Your task to perform on an android device: Show me productivity apps on the Play Store Image 0: 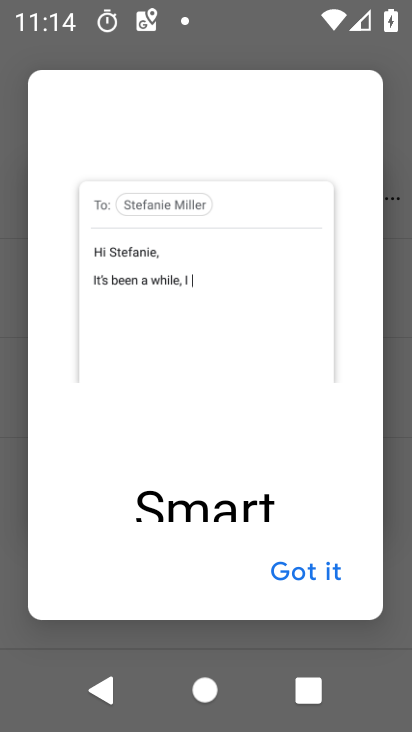
Step 0: press back button
Your task to perform on an android device: Show me productivity apps on the Play Store Image 1: 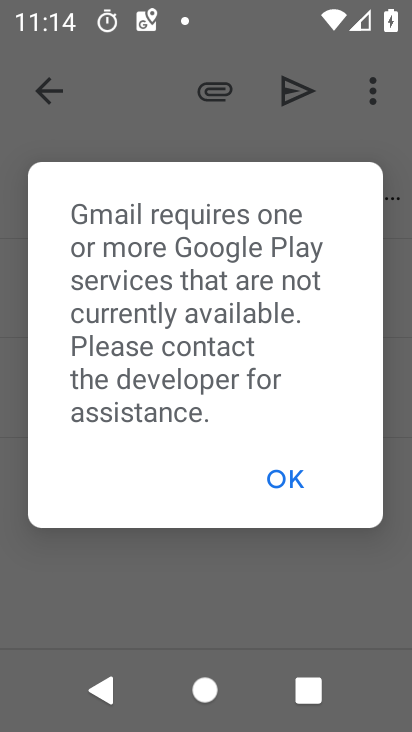
Step 1: press home button
Your task to perform on an android device: Show me productivity apps on the Play Store Image 2: 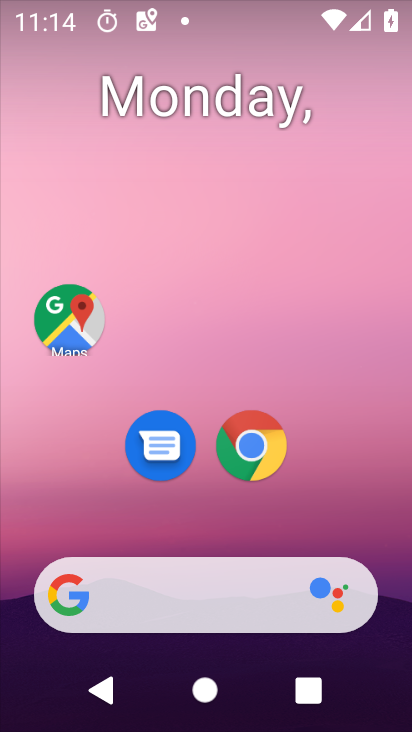
Step 2: drag from (180, 523) to (268, 127)
Your task to perform on an android device: Show me productivity apps on the Play Store Image 3: 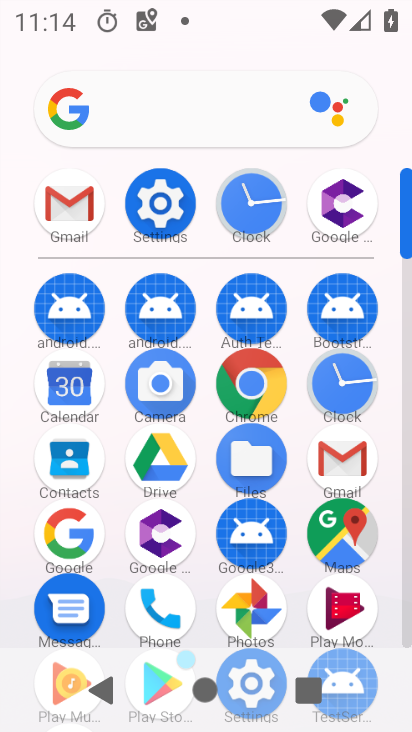
Step 3: drag from (155, 608) to (240, 242)
Your task to perform on an android device: Show me productivity apps on the Play Store Image 4: 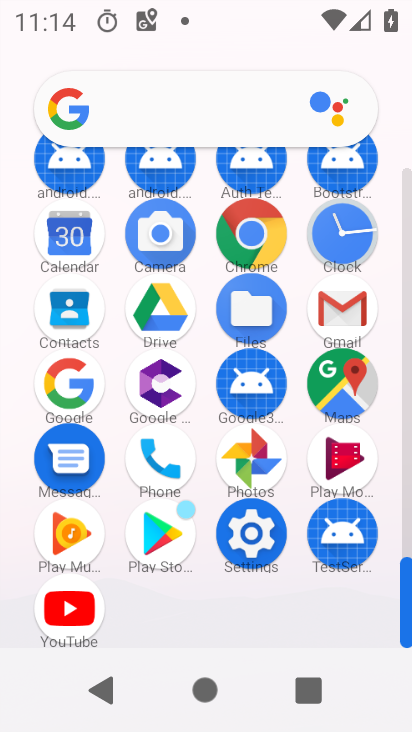
Step 4: click (153, 543)
Your task to perform on an android device: Show me productivity apps on the Play Store Image 5: 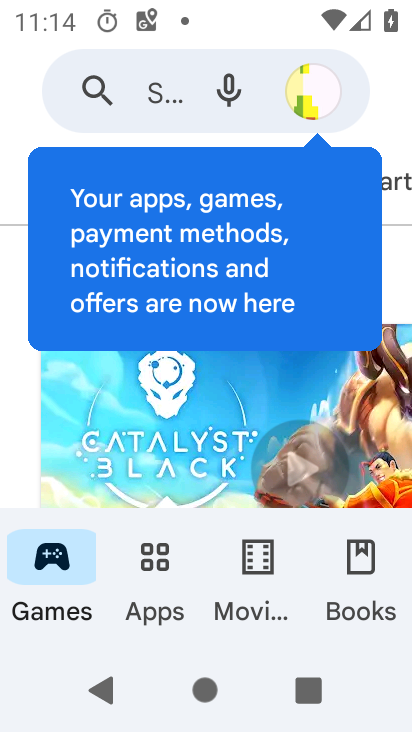
Step 5: click (158, 594)
Your task to perform on an android device: Show me productivity apps on the Play Store Image 6: 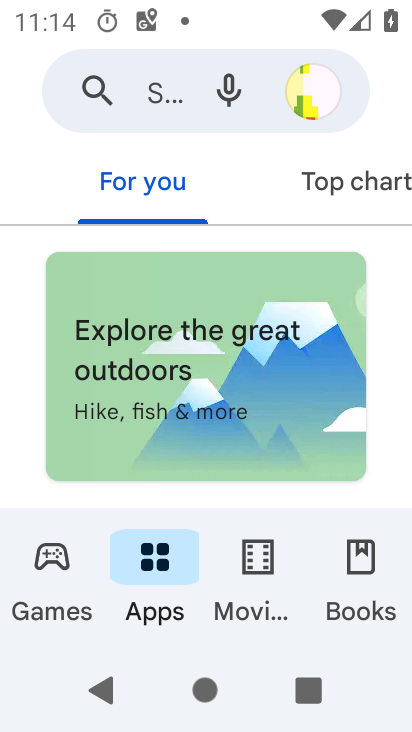
Step 6: drag from (152, 472) to (263, 36)
Your task to perform on an android device: Show me productivity apps on the Play Store Image 7: 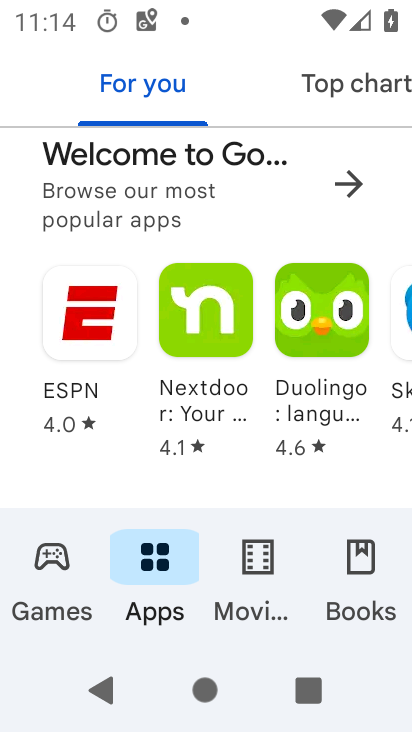
Step 7: drag from (210, 474) to (288, 29)
Your task to perform on an android device: Show me productivity apps on the Play Store Image 8: 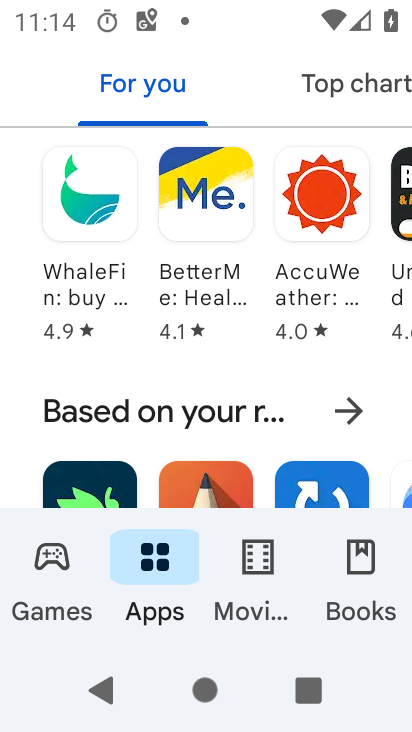
Step 8: drag from (213, 466) to (313, 29)
Your task to perform on an android device: Show me productivity apps on the Play Store Image 9: 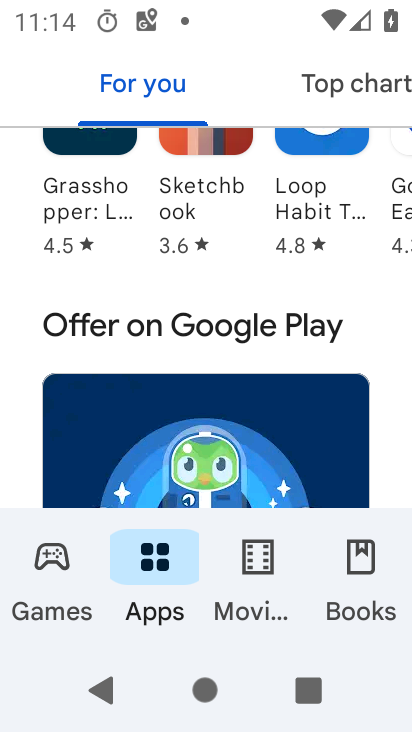
Step 9: drag from (219, 455) to (311, 18)
Your task to perform on an android device: Show me productivity apps on the Play Store Image 10: 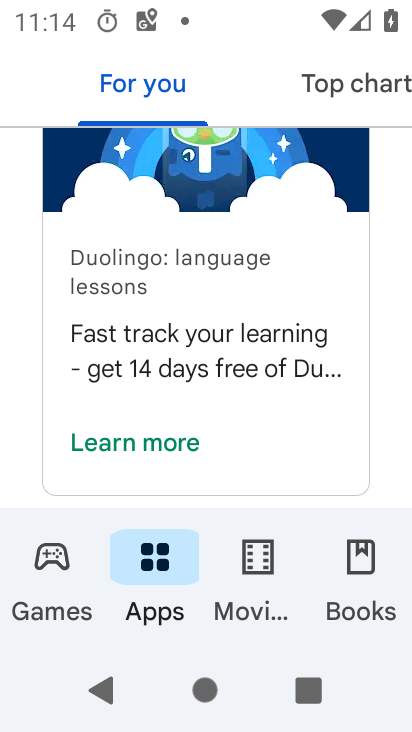
Step 10: drag from (217, 453) to (260, 33)
Your task to perform on an android device: Show me productivity apps on the Play Store Image 11: 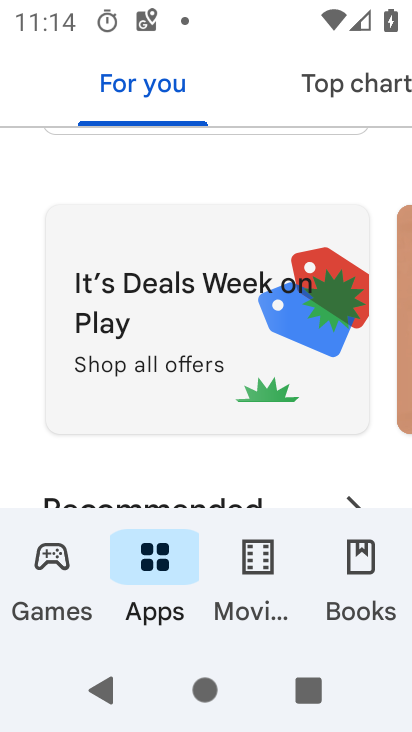
Step 11: drag from (215, 459) to (270, 20)
Your task to perform on an android device: Show me productivity apps on the Play Store Image 12: 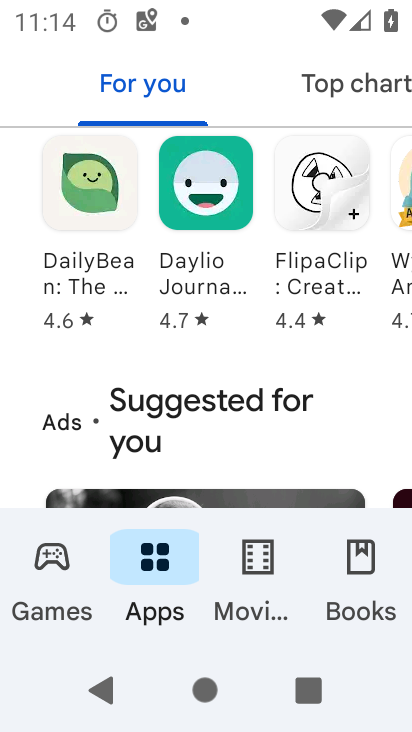
Step 12: drag from (249, 405) to (274, 6)
Your task to perform on an android device: Show me productivity apps on the Play Store Image 13: 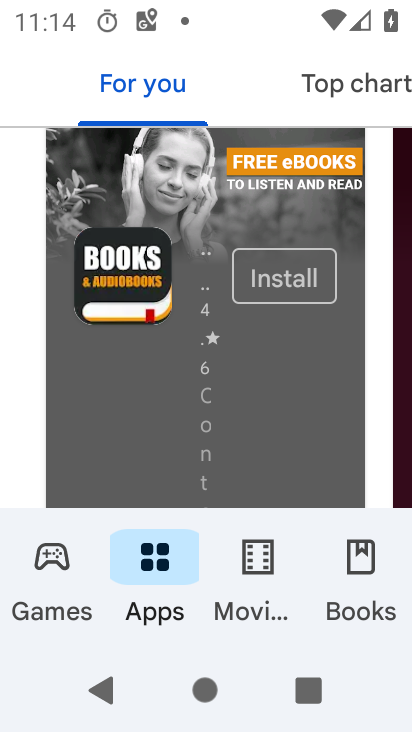
Step 13: drag from (251, 427) to (310, 27)
Your task to perform on an android device: Show me productivity apps on the Play Store Image 14: 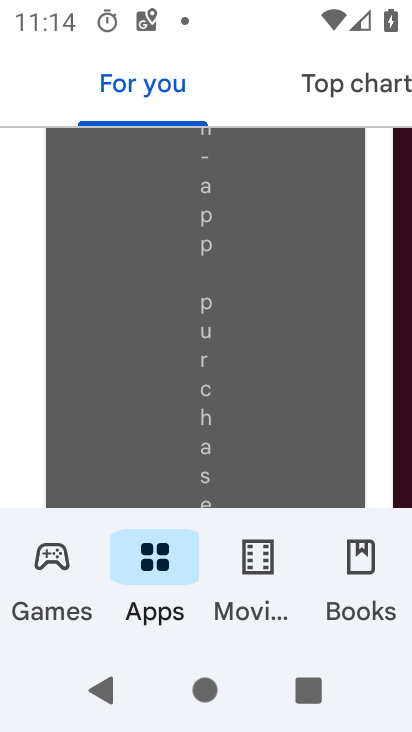
Step 14: drag from (169, 467) to (284, 14)
Your task to perform on an android device: Show me productivity apps on the Play Store Image 15: 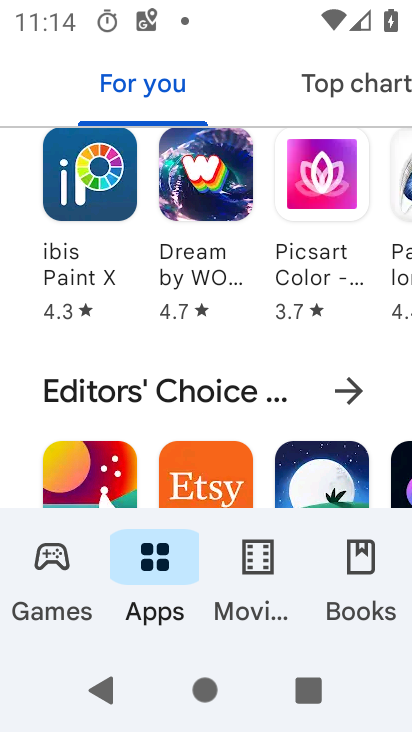
Step 15: drag from (224, 450) to (332, 5)
Your task to perform on an android device: Show me productivity apps on the Play Store Image 16: 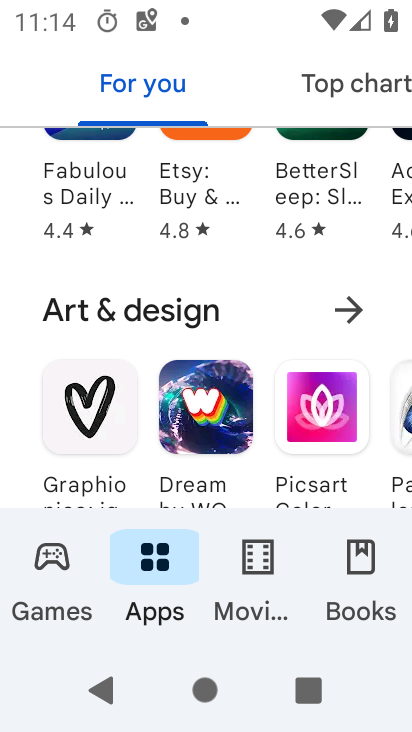
Step 16: drag from (225, 453) to (296, 54)
Your task to perform on an android device: Show me productivity apps on the Play Store Image 17: 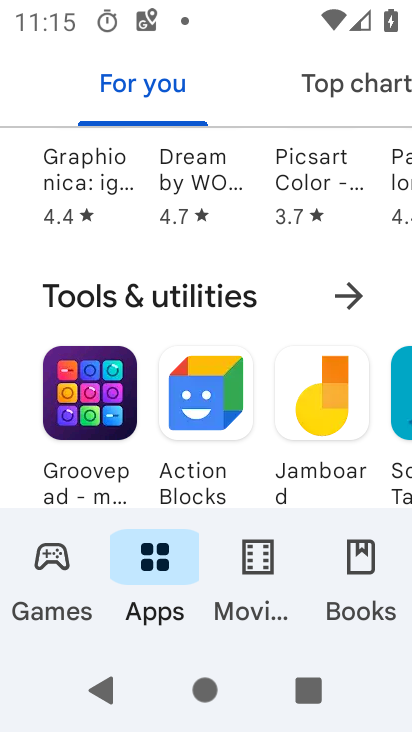
Step 17: drag from (244, 471) to (296, 51)
Your task to perform on an android device: Show me productivity apps on the Play Store Image 18: 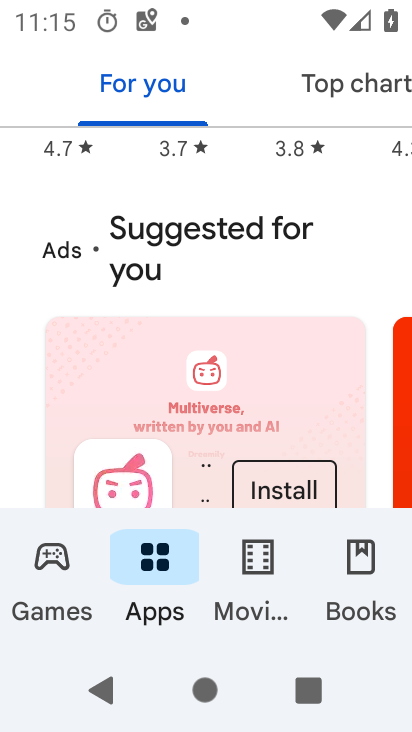
Step 18: drag from (204, 459) to (285, 18)
Your task to perform on an android device: Show me productivity apps on the Play Store Image 19: 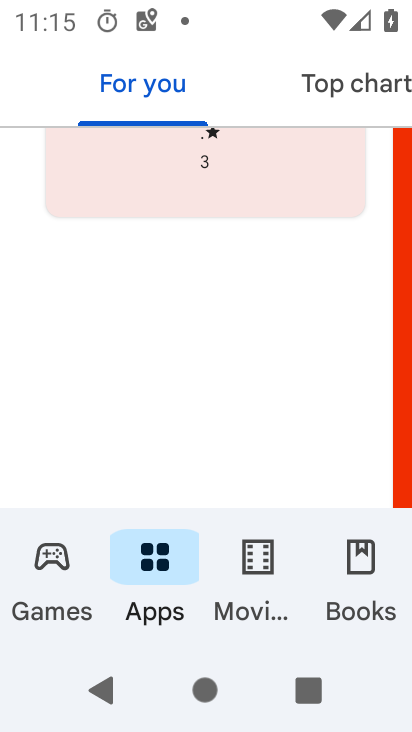
Step 19: drag from (208, 473) to (324, 0)
Your task to perform on an android device: Show me productivity apps on the Play Store Image 20: 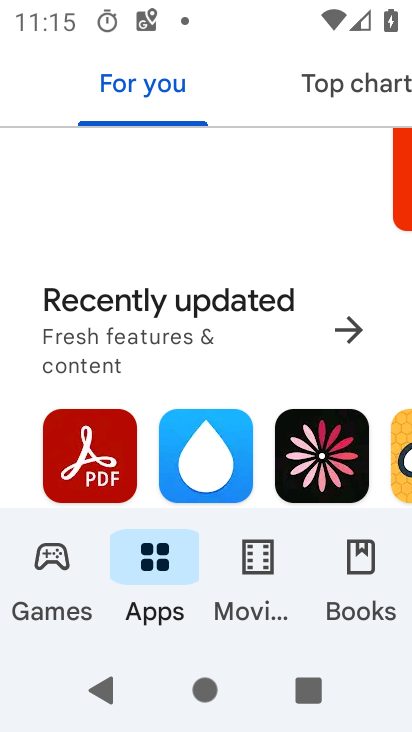
Step 20: drag from (256, 422) to (346, 6)
Your task to perform on an android device: Show me productivity apps on the Play Store Image 21: 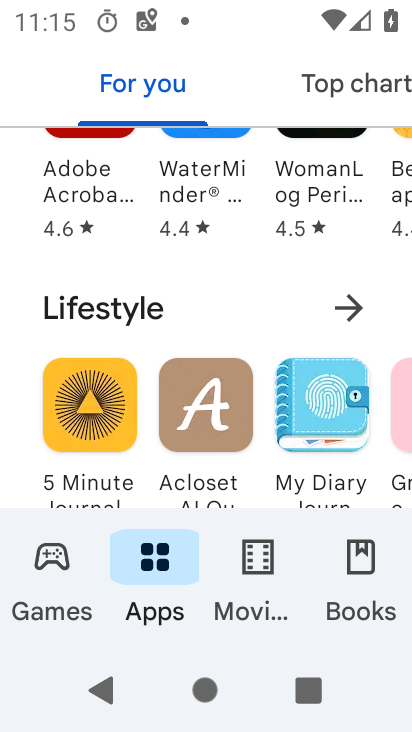
Step 21: drag from (235, 483) to (366, 22)
Your task to perform on an android device: Show me productivity apps on the Play Store Image 22: 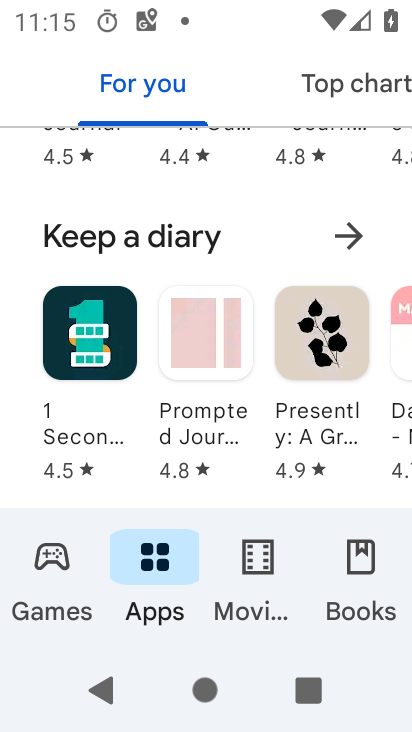
Step 22: drag from (218, 450) to (337, 12)
Your task to perform on an android device: Show me productivity apps on the Play Store Image 23: 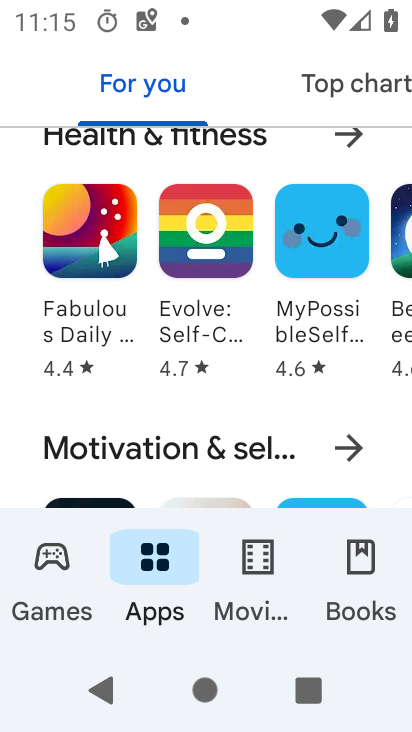
Step 23: drag from (222, 456) to (349, 2)
Your task to perform on an android device: Show me productivity apps on the Play Store Image 24: 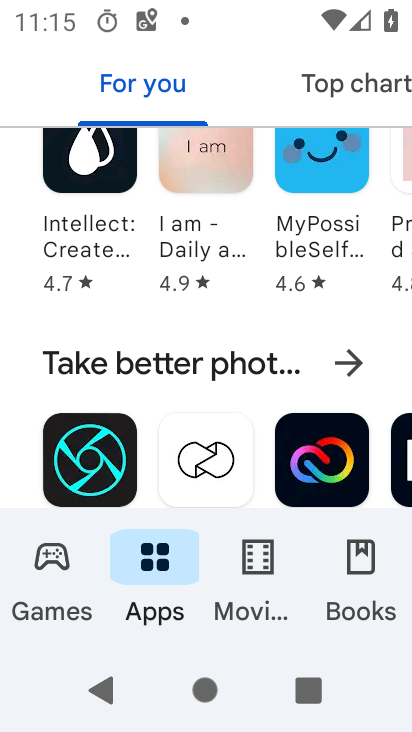
Step 24: drag from (162, 426) to (320, 23)
Your task to perform on an android device: Show me productivity apps on the Play Store Image 25: 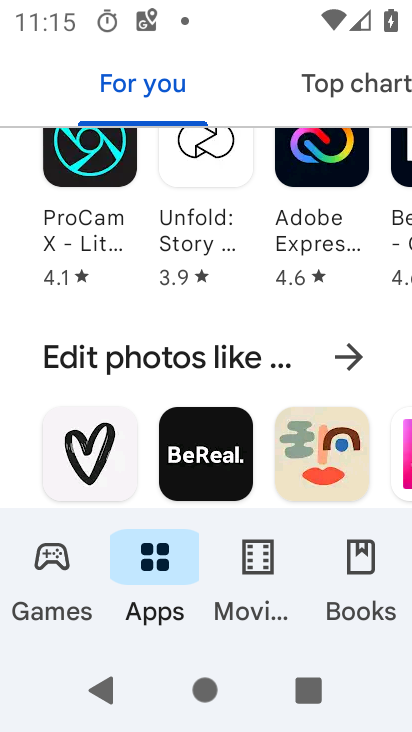
Step 25: drag from (212, 464) to (340, 1)
Your task to perform on an android device: Show me productivity apps on the Play Store Image 26: 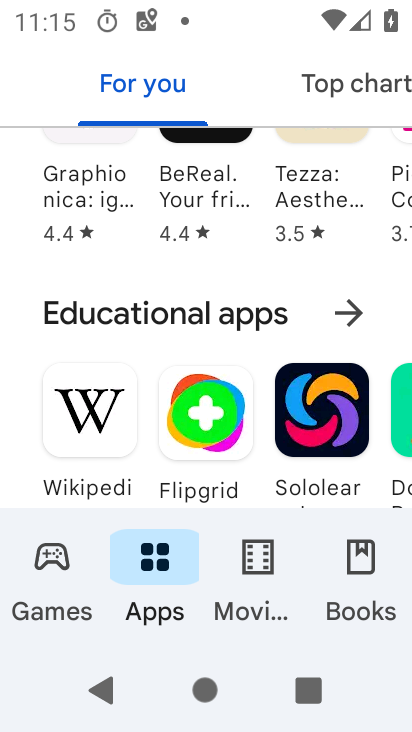
Step 26: drag from (213, 450) to (295, 40)
Your task to perform on an android device: Show me productivity apps on the Play Store Image 27: 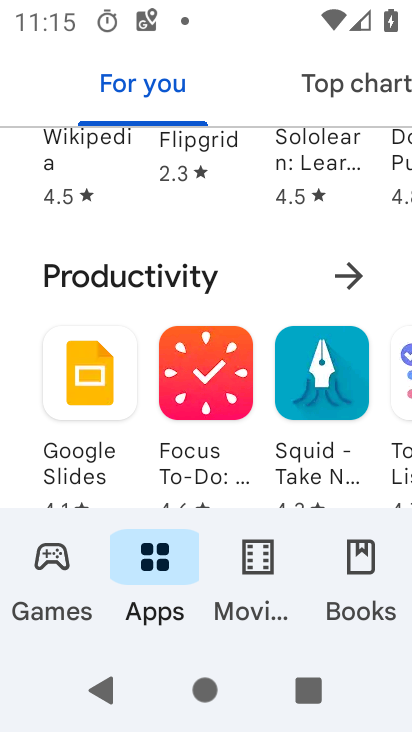
Step 27: click (353, 248)
Your task to perform on an android device: Show me productivity apps on the Play Store Image 28: 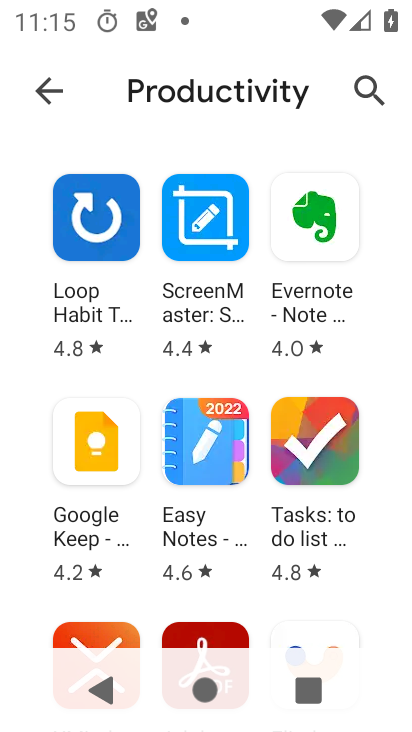
Step 28: task complete